Your task to perform on an android device: What is the recent news? Image 0: 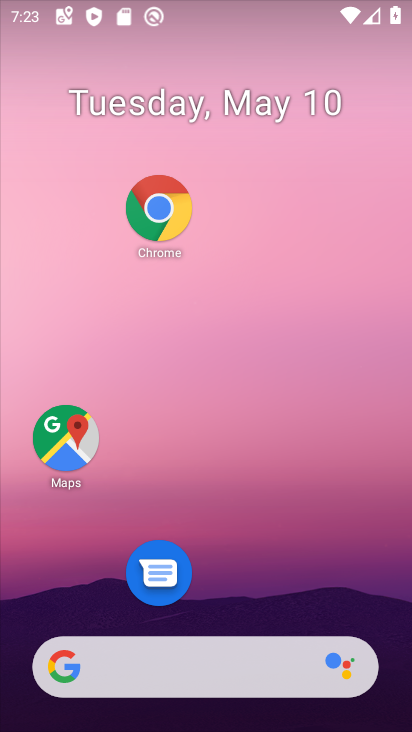
Step 0: press home button
Your task to perform on an android device: What is the recent news? Image 1: 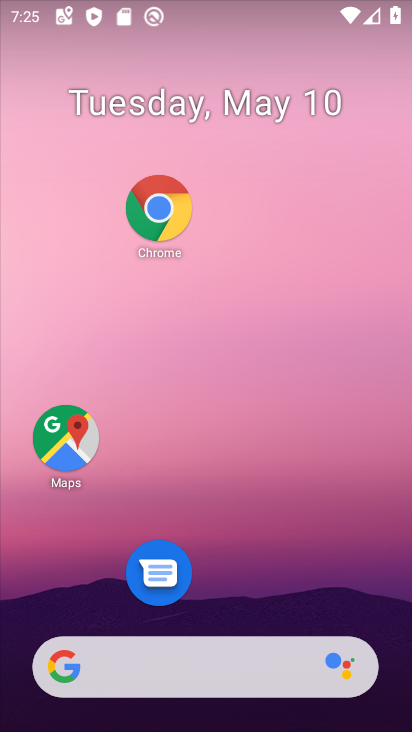
Step 1: drag from (315, 695) to (385, 241)
Your task to perform on an android device: What is the recent news? Image 2: 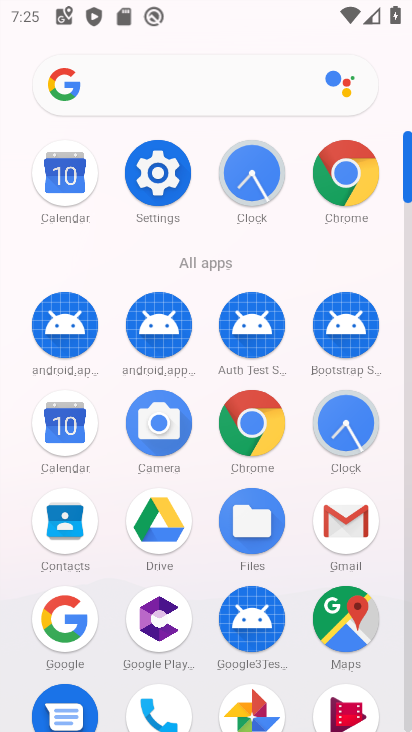
Step 2: click (126, 97)
Your task to perform on an android device: What is the recent news? Image 3: 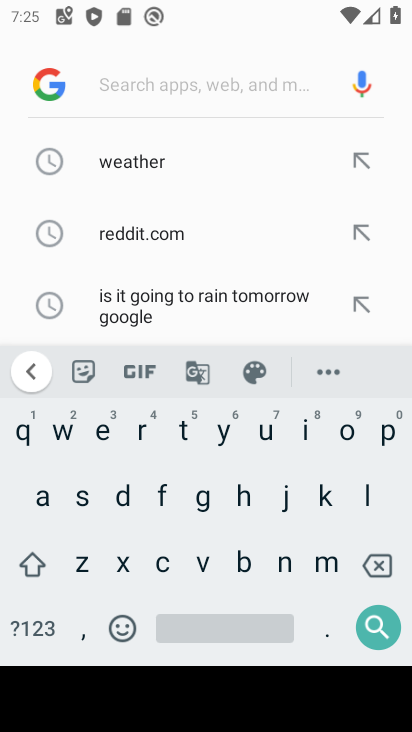
Step 3: click (140, 431)
Your task to perform on an android device: What is the recent news? Image 4: 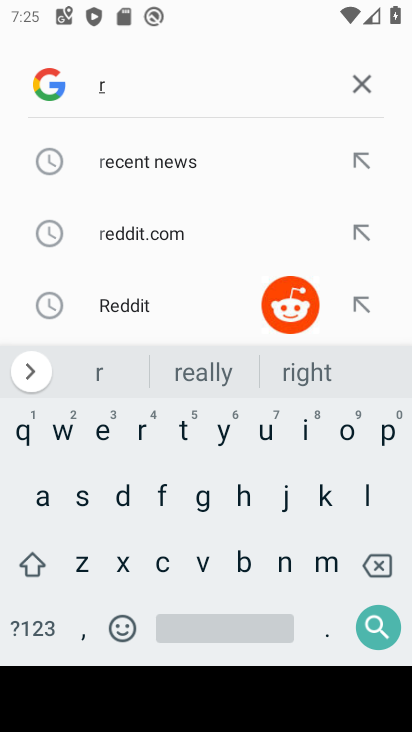
Step 4: click (155, 169)
Your task to perform on an android device: What is the recent news? Image 5: 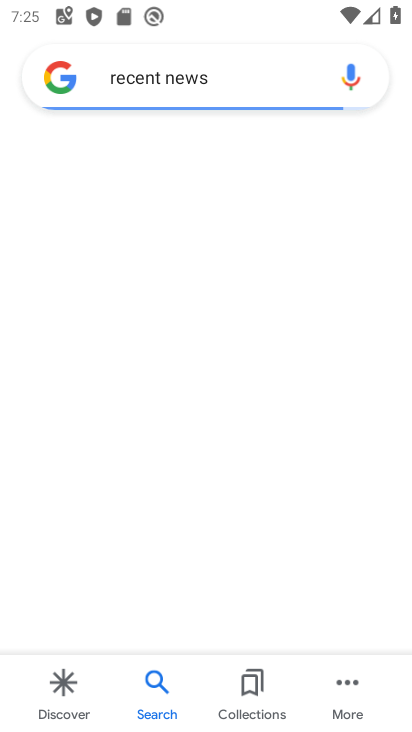
Step 5: task complete